Your task to perform on an android device: set the timer Image 0: 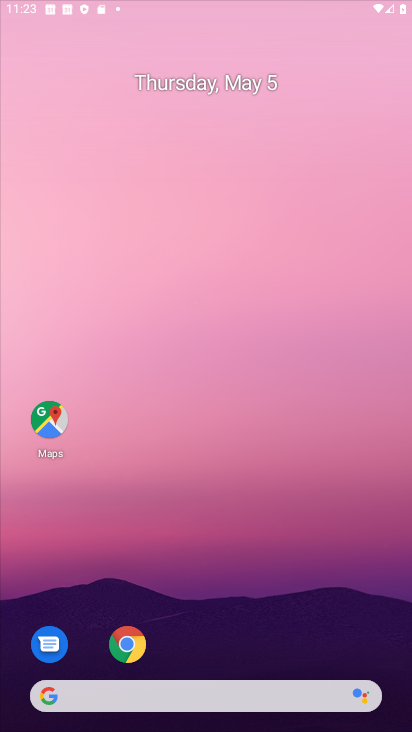
Step 0: drag from (162, 650) to (211, 405)
Your task to perform on an android device: set the timer Image 1: 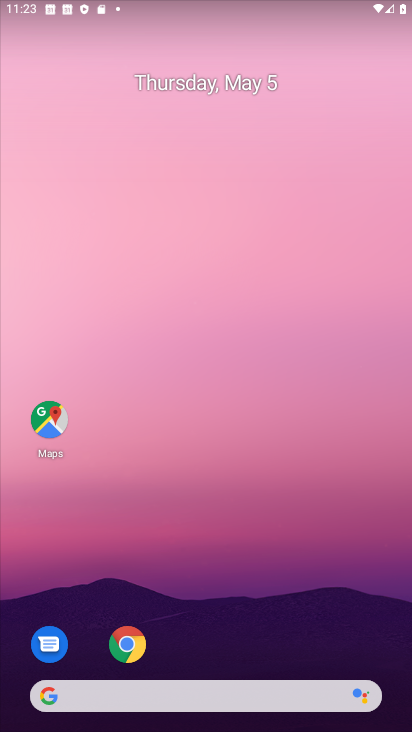
Step 1: drag from (204, 631) to (237, 263)
Your task to perform on an android device: set the timer Image 2: 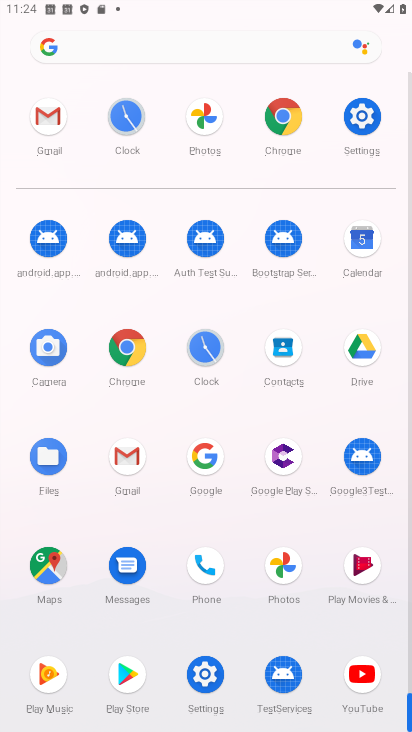
Step 2: drag from (185, 637) to (207, 370)
Your task to perform on an android device: set the timer Image 3: 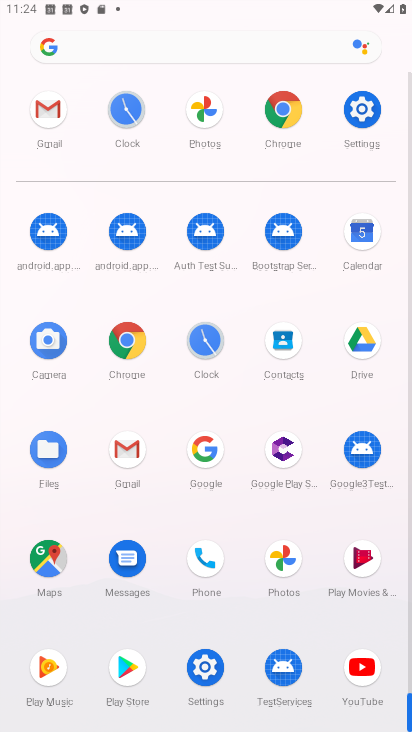
Step 3: drag from (246, 534) to (196, 192)
Your task to perform on an android device: set the timer Image 4: 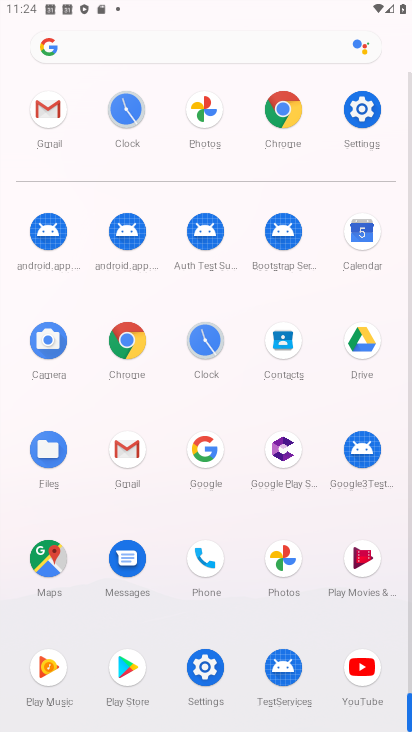
Step 4: click (195, 336)
Your task to perform on an android device: set the timer Image 5: 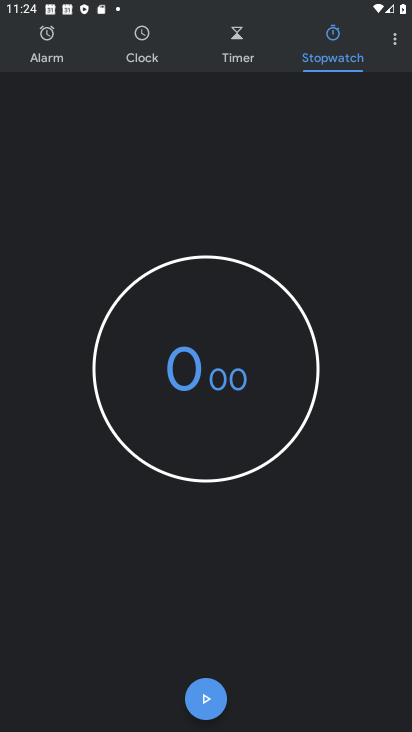
Step 5: click (396, 44)
Your task to perform on an android device: set the timer Image 6: 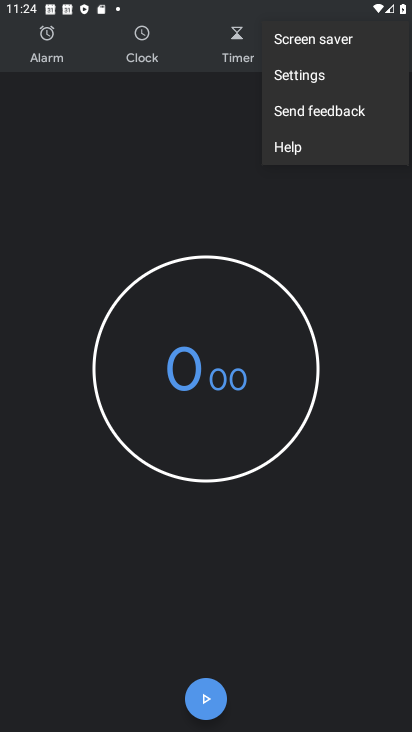
Step 6: click (352, 71)
Your task to perform on an android device: set the timer Image 7: 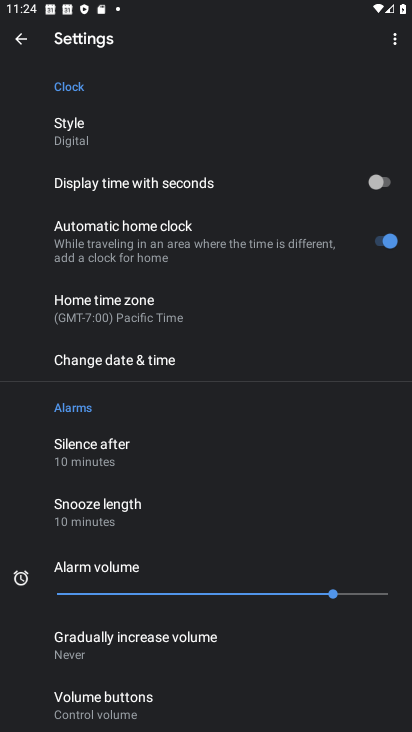
Step 7: drag from (280, 325) to (275, 174)
Your task to perform on an android device: set the timer Image 8: 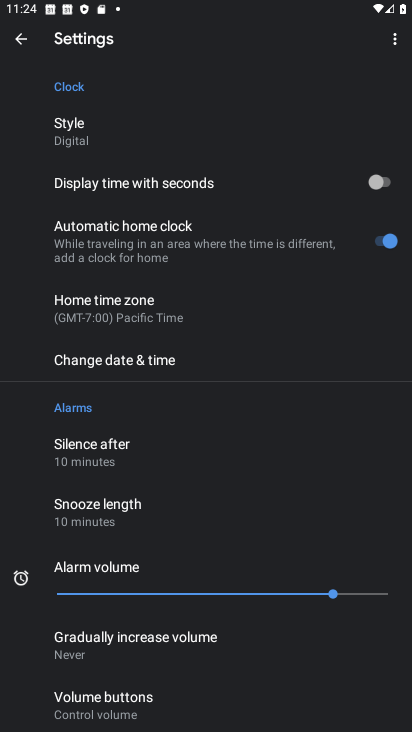
Step 8: drag from (210, 695) to (231, 120)
Your task to perform on an android device: set the timer Image 9: 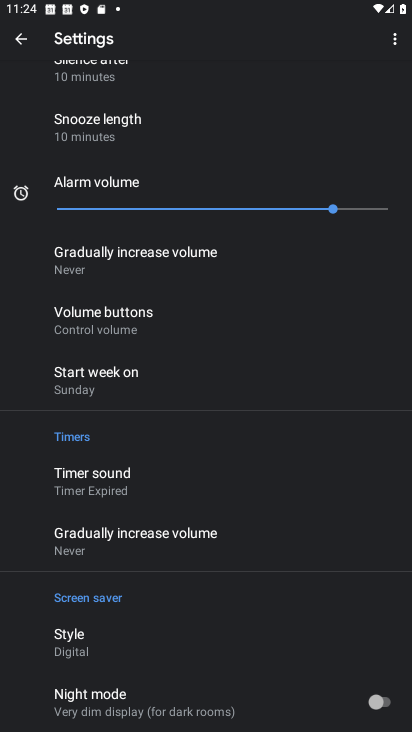
Step 9: drag from (230, 654) to (215, 178)
Your task to perform on an android device: set the timer Image 10: 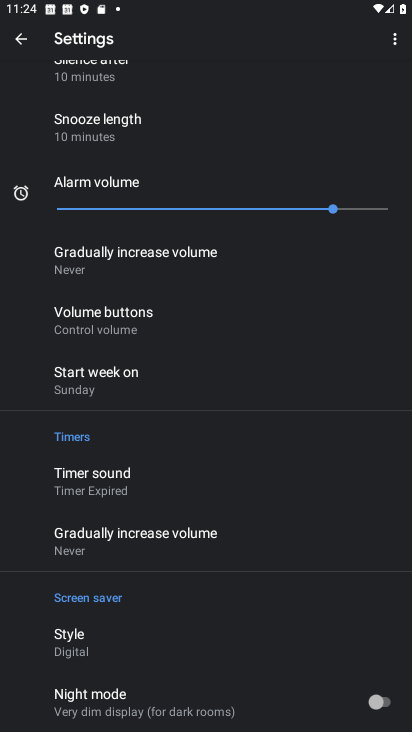
Step 10: drag from (136, 673) to (232, 66)
Your task to perform on an android device: set the timer Image 11: 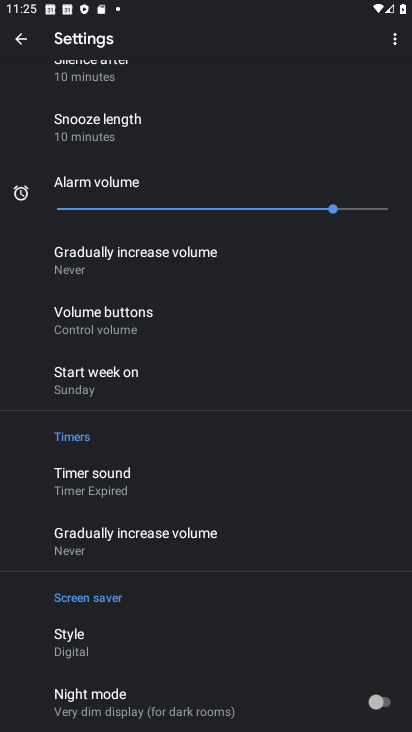
Step 11: drag from (269, 639) to (250, 201)
Your task to perform on an android device: set the timer Image 12: 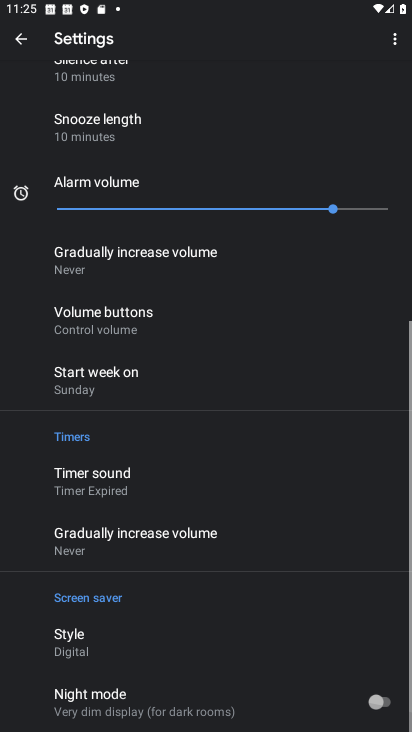
Step 12: drag from (223, 171) to (246, 651)
Your task to perform on an android device: set the timer Image 13: 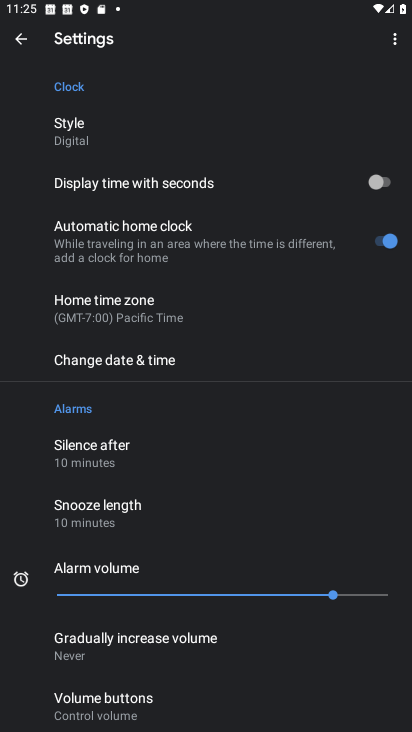
Step 13: click (18, 33)
Your task to perform on an android device: set the timer Image 14: 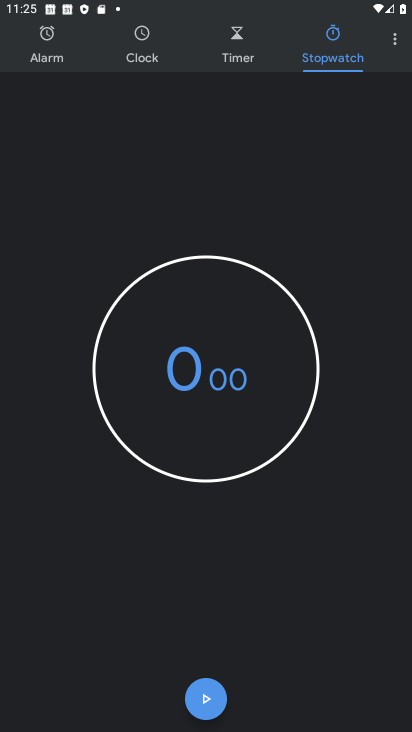
Step 14: click (156, 39)
Your task to perform on an android device: set the timer Image 15: 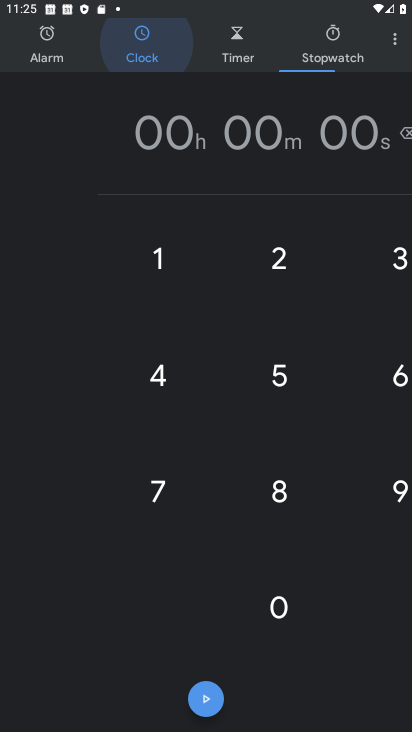
Step 15: click (230, 25)
Your task to perform on an android device: set the timer Image 16: 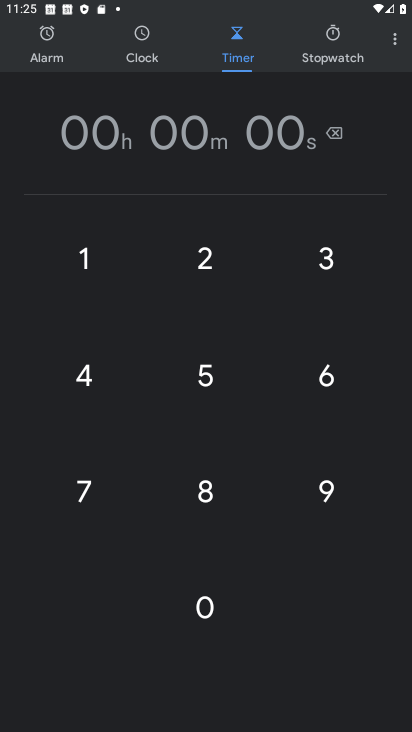
Step 16: click (204, 267)
Your task to perform on an android device: set the timer Image 17: 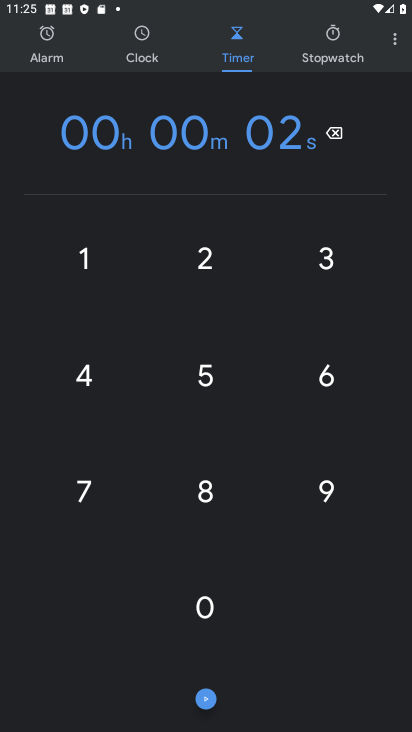
Step 17: click (210, 387)
Your task to perform on an android device: set the timer Image 18: 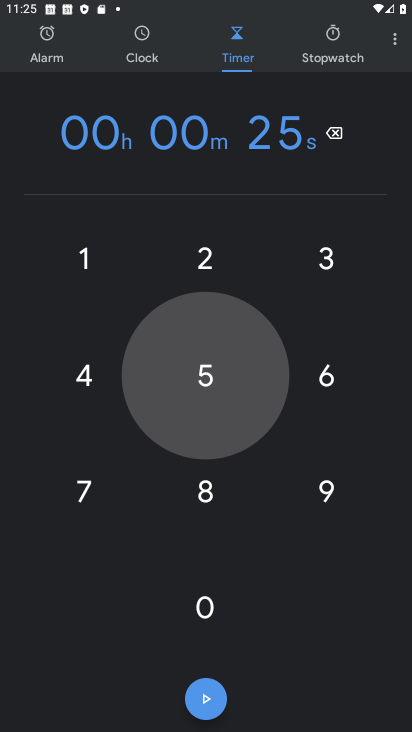
Step 18: click (366, 385)
Your task to perform on an android device: set the timer Image 19: 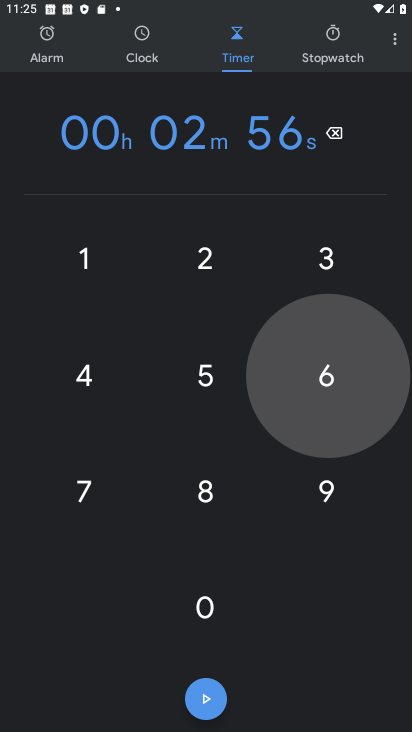
Step 19: click (322, 367)
Your task to perform on an android device: set the timer Image 20: 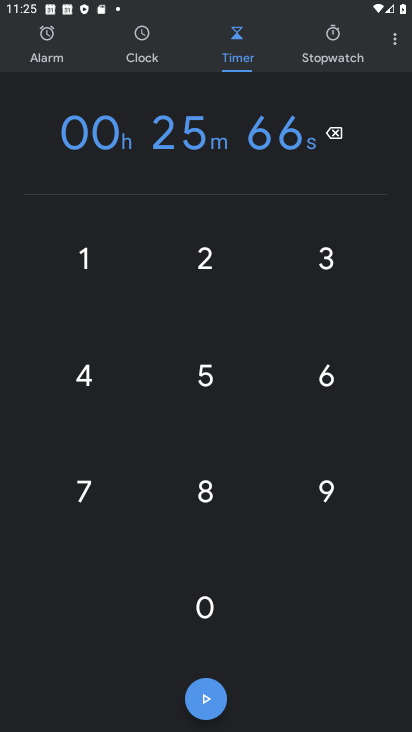
Step 20: click (203, 493)
Your task to perform on an android device: set the timer Image 21: 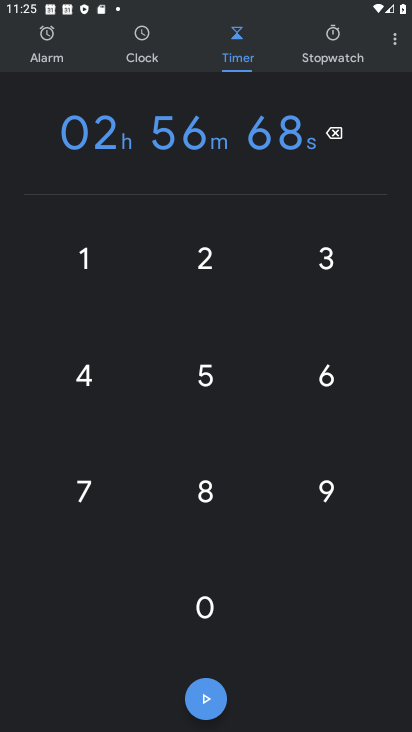
Step 21: click (196, 702)
Your task to perform on an android device: set the timer Image 22: 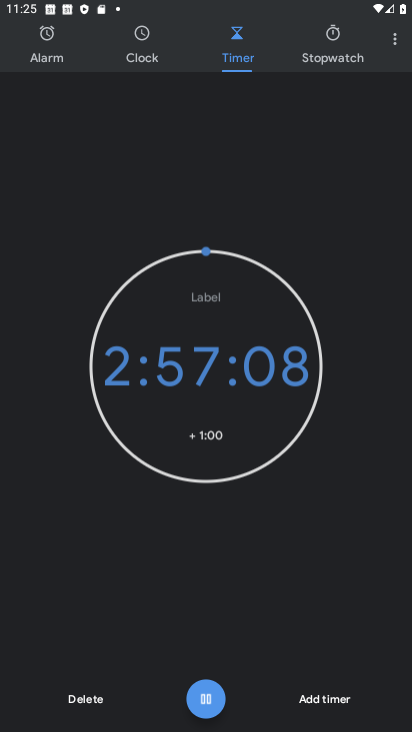
Step 22: task complete